Your task to perform on an android device: turn on sleep mode Image 0: 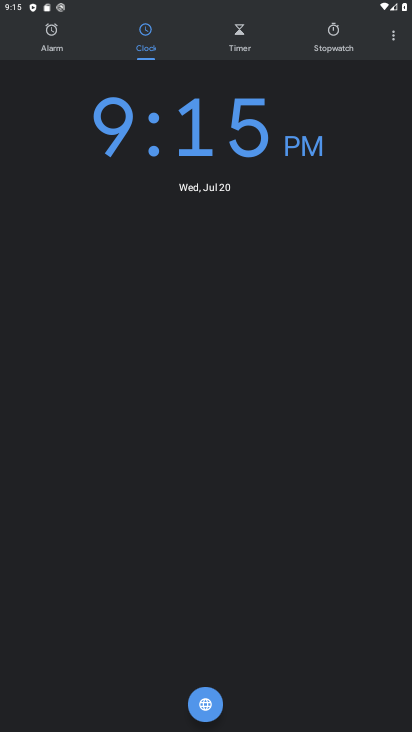
Step 0: press home button
Your task to perform on an android device: turn on sleep mode Image 1: 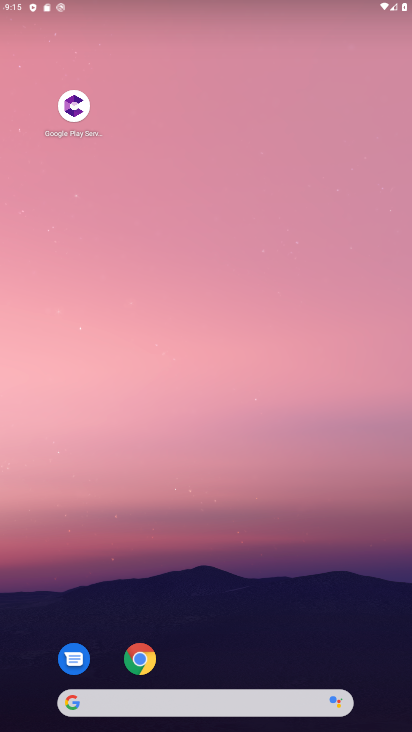
Step 1: drag from (306, 643) to (355, 61)
Your task to perform on an android device: turn on sleep mode Image 2: 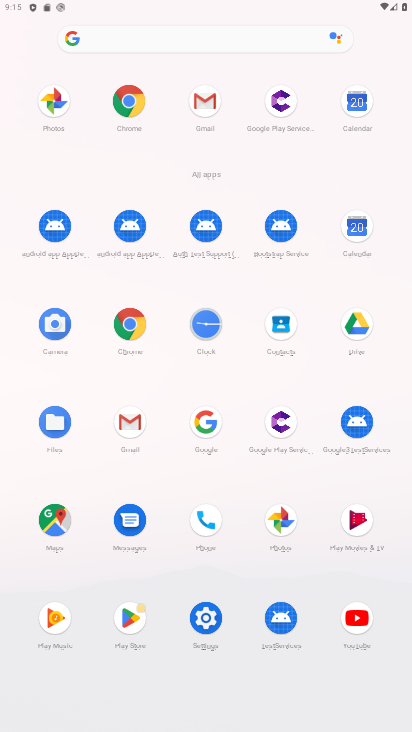
Step 2: click (209, 616)
Your task to perform on an android device: turn on sleep mode Image 3: 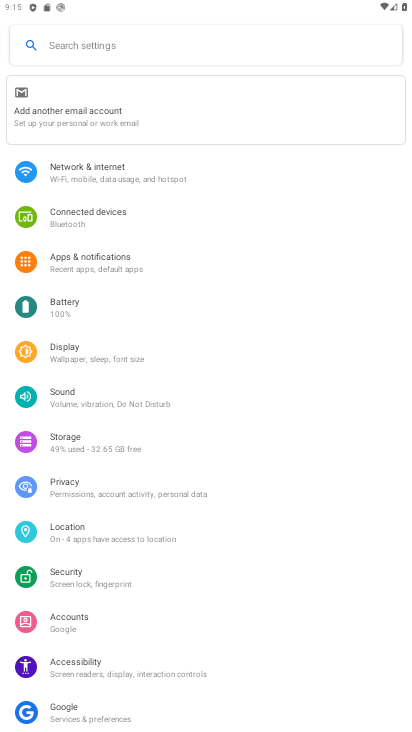
Step 3: click (130, 364)
Your task to perform on an android device: turn on sleep mode Image 4: 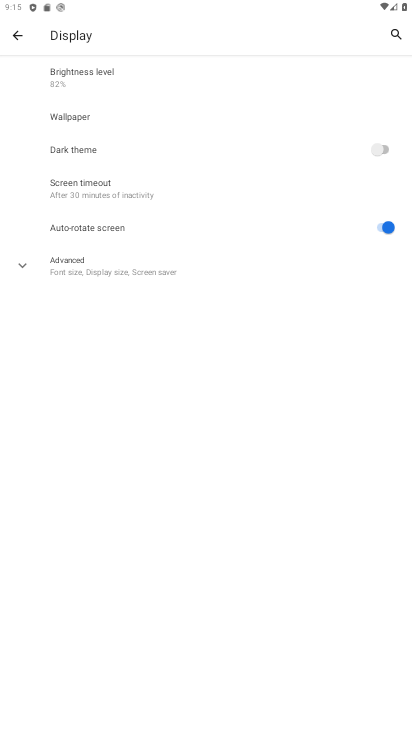
Step 4: click (145, 172)
Your task to perform on an android device: turn on sleep mode Image 5: 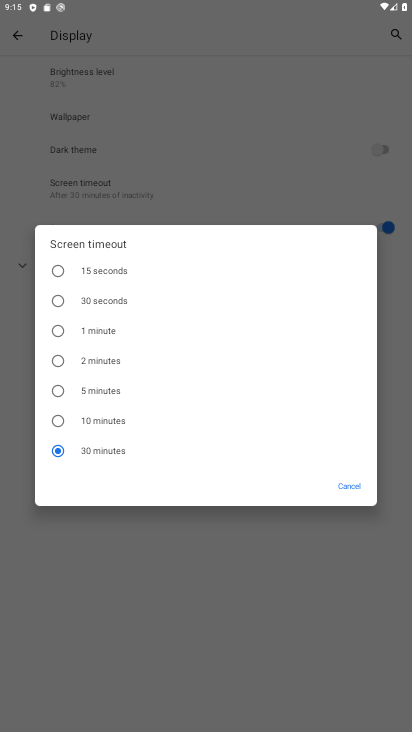
Step 5: task complete